Your task to perform on an android device: open chrome privacy settings Image 0: 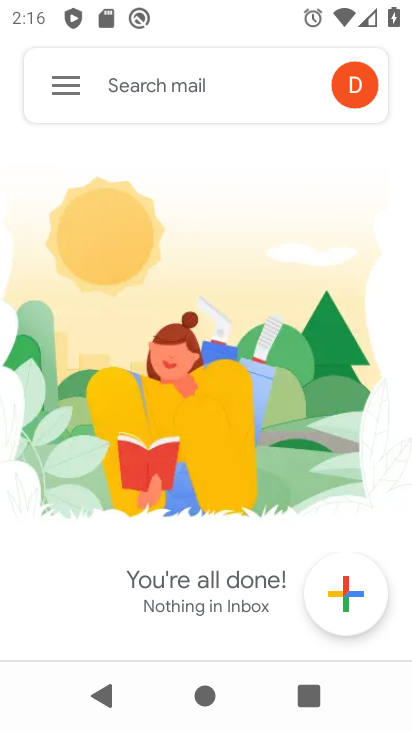
Step 0: press home button
Your task to perform on an android device: open chrome privacy settings Image 1: 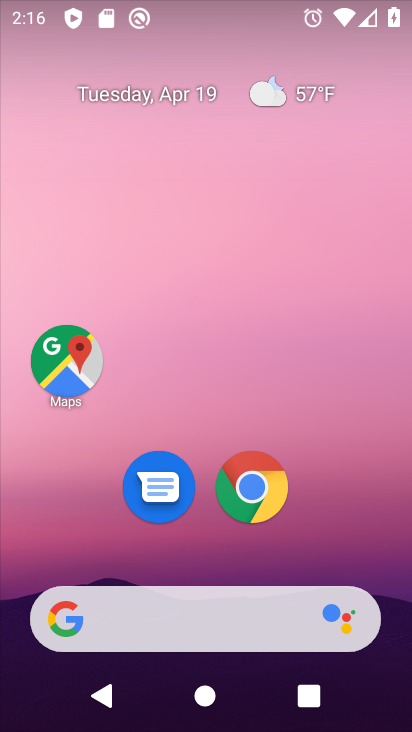
Step 1: click (249, 494)
Your task to perform on an android device: open chrome privacy settings Image 2: 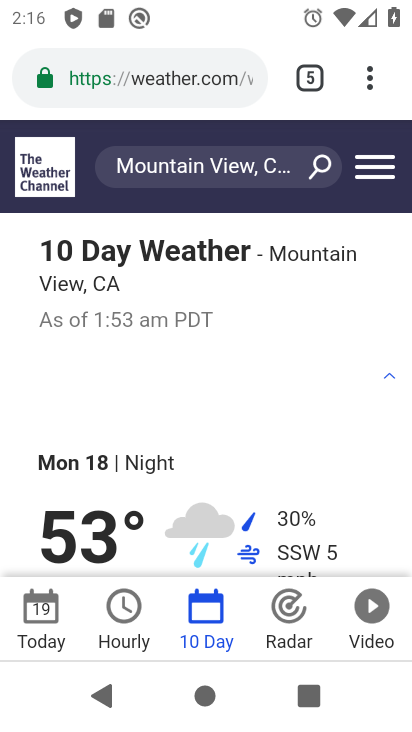
Step 2: click (370, 87)
Your task to perform on an android device: open chrome privacy settings Image 3: 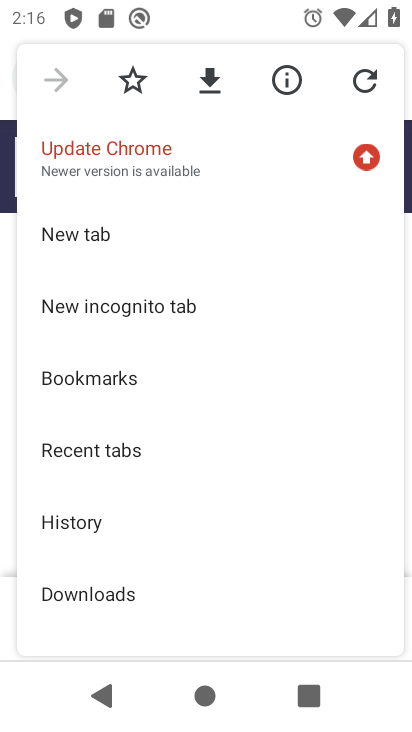
Step 3: drag from (184, 577) to (222, 231)
Your task to perform on an android device: open chrome privacy settings Image 4: 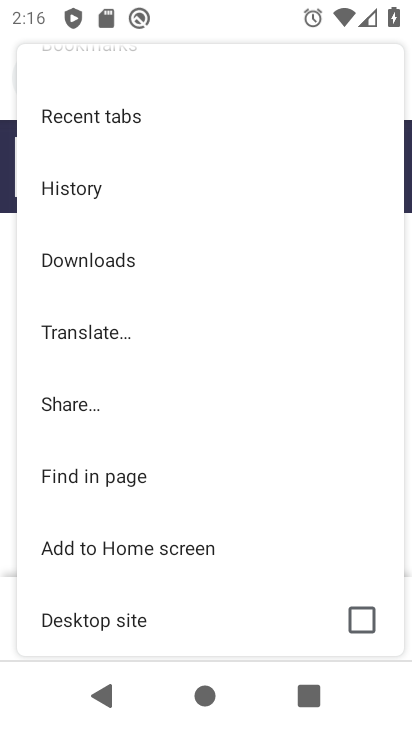
Step 4: drag from (202, 498) to (233, 251)
Your task to perform on an android device: open chrome privacy settings Image 5: 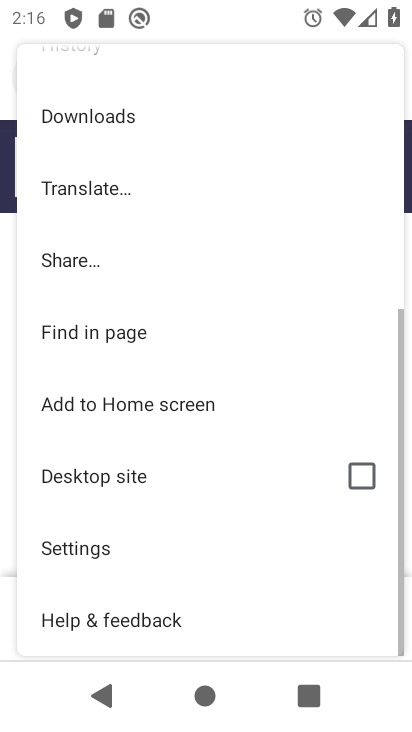
Step 5: drag from (141, 546) to (209, 197)
Your task to perform on an android device: open chrome privacy settings Image 6: 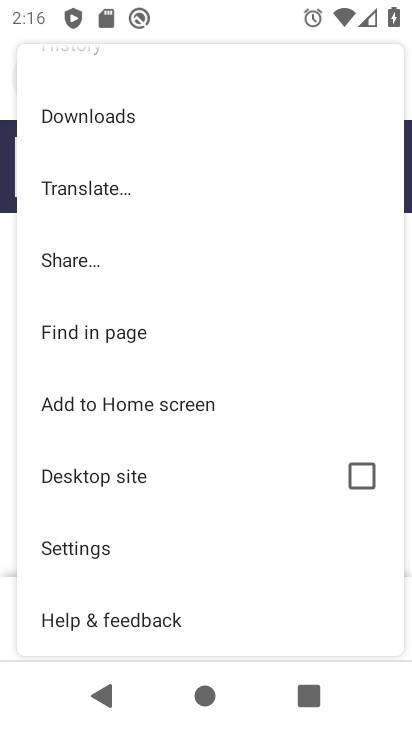
Step 6: click (116, 549)
Your task to perform on an android device: open chrome privacy settings Image 7: 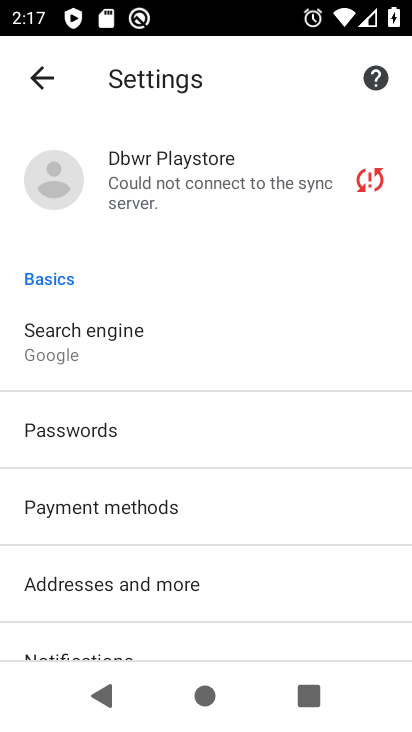
Step 7: drag from (259, 569) to (262, 340)
Your task to perform on an android device: open chrome privacy settings Image 8: 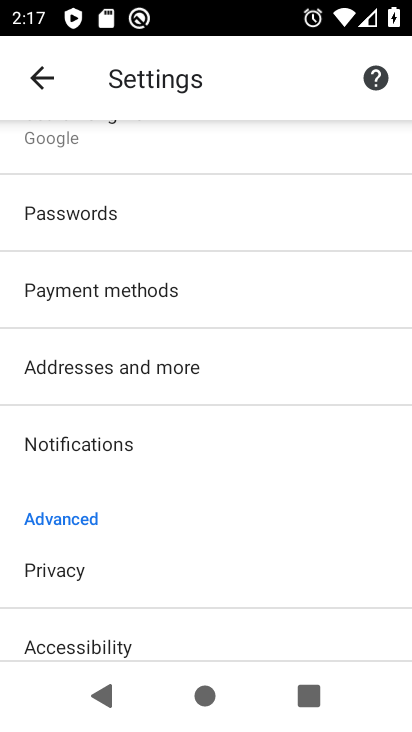
Step 8: click (50, 568)
Your task to perform on an android device: open chrome privacy settings Image 9: 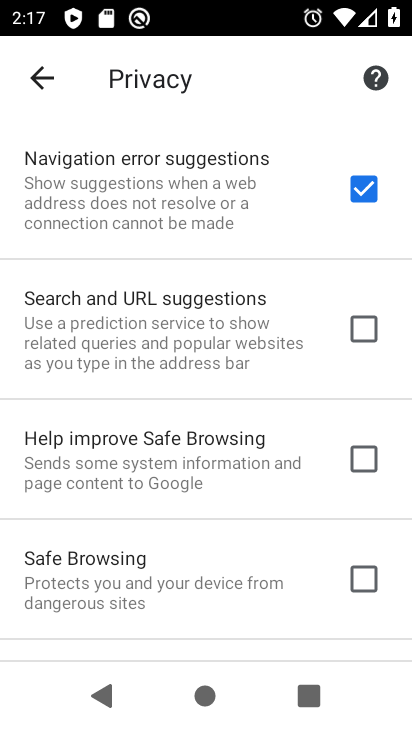
Step 9: task complete